Your task to perform on an android device: change your default location settings in chrome Image 0: 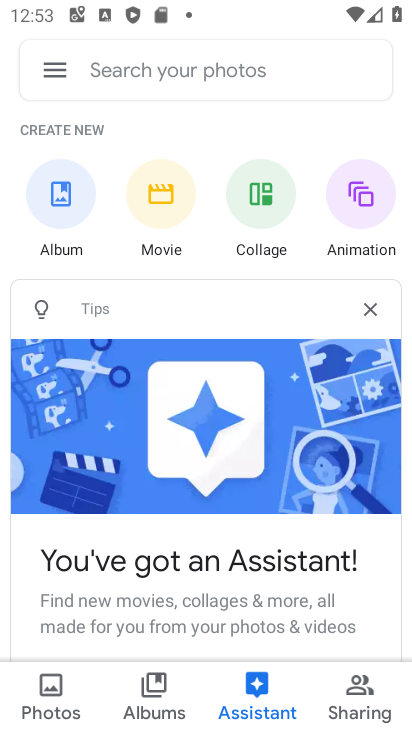
Step 0: press home button
Your task to perform on an android device: change your default location settings in chrome Image 1: 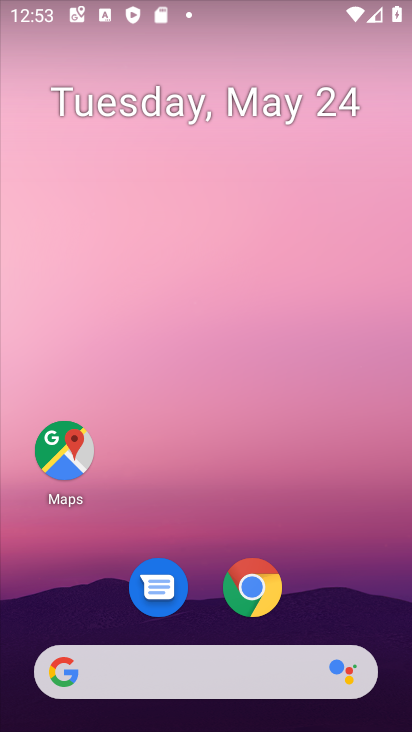
Step 1: click (273, 588)
Your task to perform on an android device: change your default location settings in chrome Image 2: 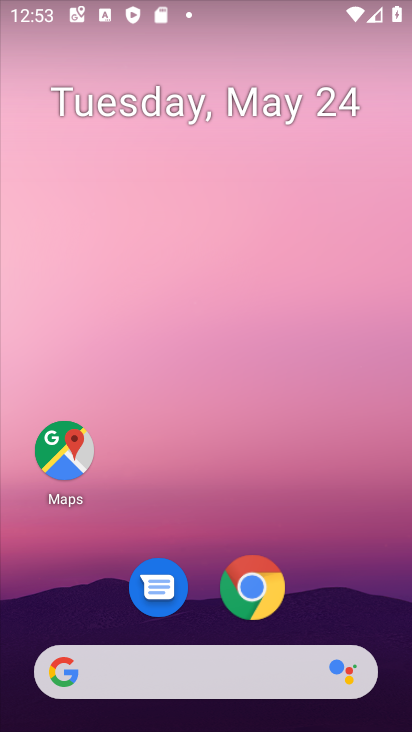
Step 2: click (262, 596)
Your task to perform on an android device: change your default location settings in chrome Image 3: 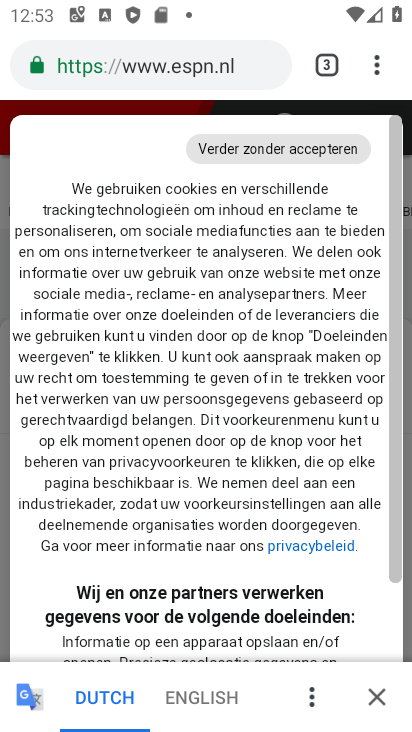
Step 3: click (369, 66)
Your task to perform on an android device: change your default location settings in chrome Image 4: 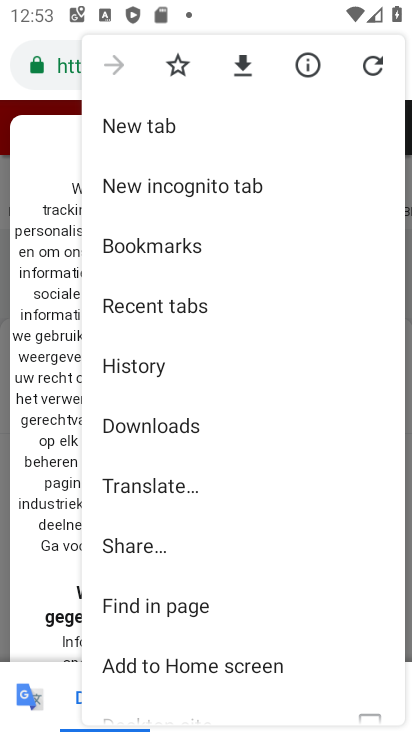
Step 4: drag from (234, 647) to (289, 208)
Your task to perform on an android device: change your default location settings in chrome Image 5: 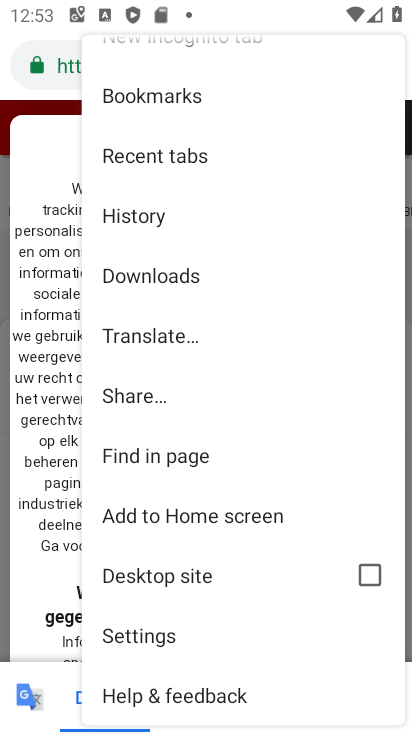
Step 5: click (145, 646)
Your task to perform on an android device: change your default location settings in chrome Image 6: 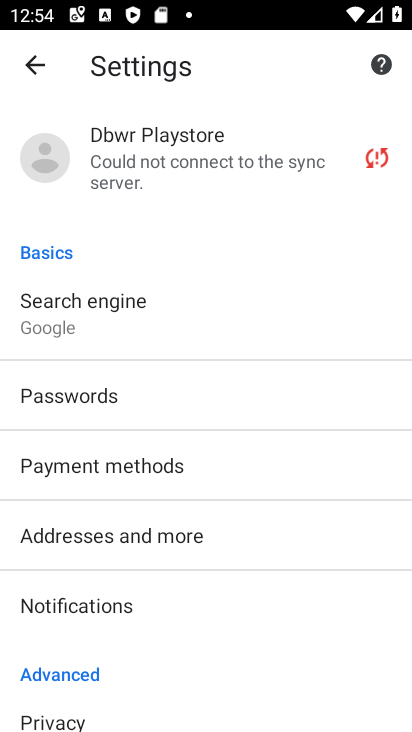
Step 6: drag from (176, 639) to (121, 93)
Your task to perform on an android device: change your default location settings in chrome Image 7: 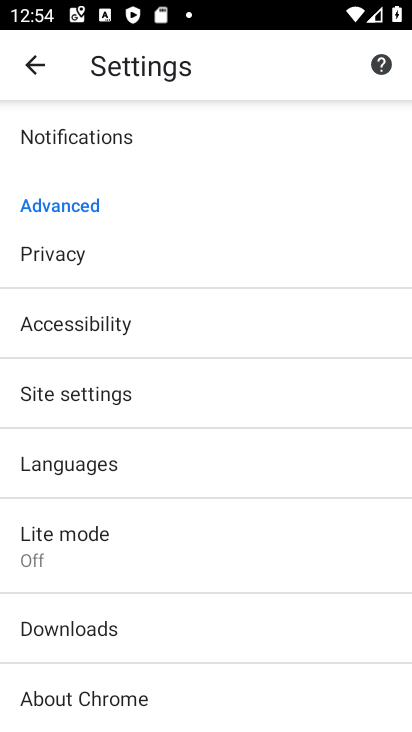
Step 7: click (130, 403)
Your task to perform on an android device: change your default location settings in chrome Image 8: 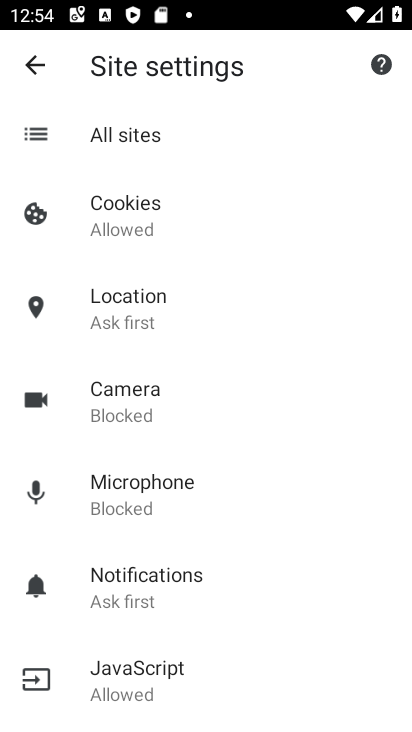
Step 8: click (186, 312)
Your task to perform on an android device: change your default location settings in chrome Image 9: 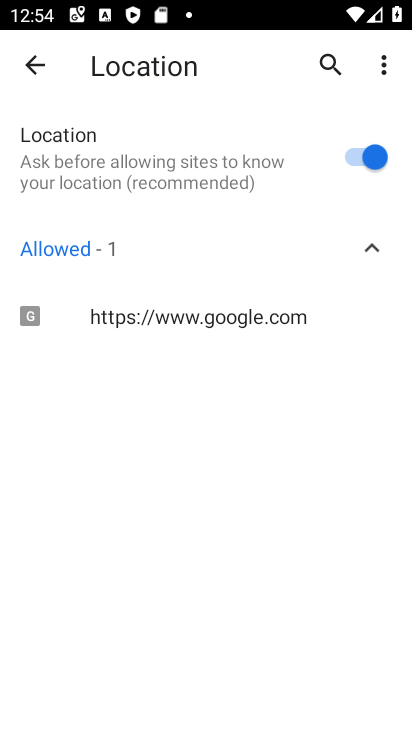
Step 9: click (373, 157)
Your task to perform on an android device: change your default location settings in chrome Image 10: 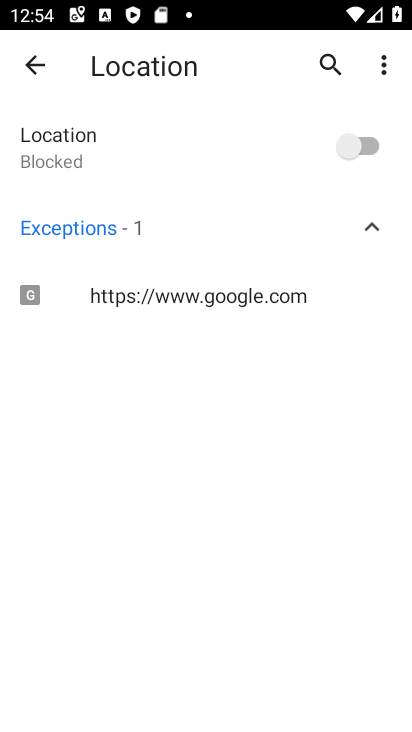
Step 10: task complete